Your task to perform on an android device: change notification settings in the gmail app Image 0: 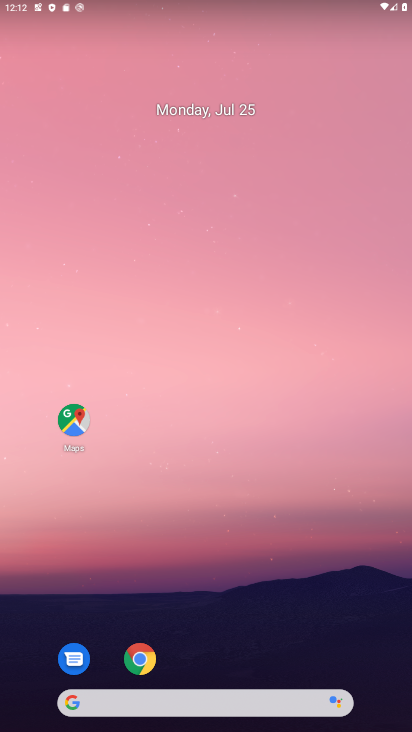
Step 0: click (130, 648)
Your task to perform on an android device: change notification settings in the gmail app Image 1: 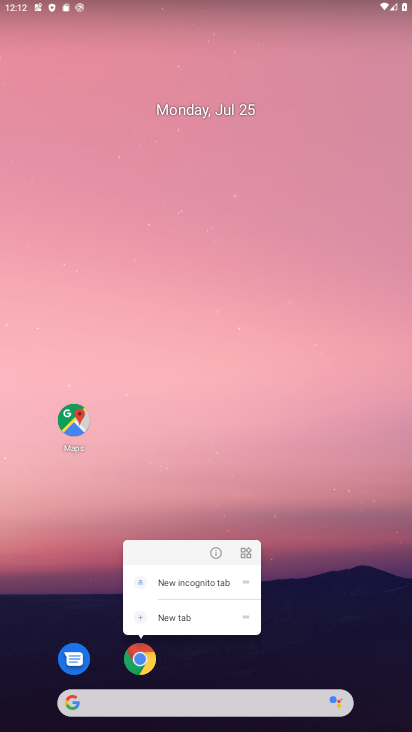
Step 1: click (130, 666)
Your task to perform on an android device: change notification settings in the gmail app Image 2: 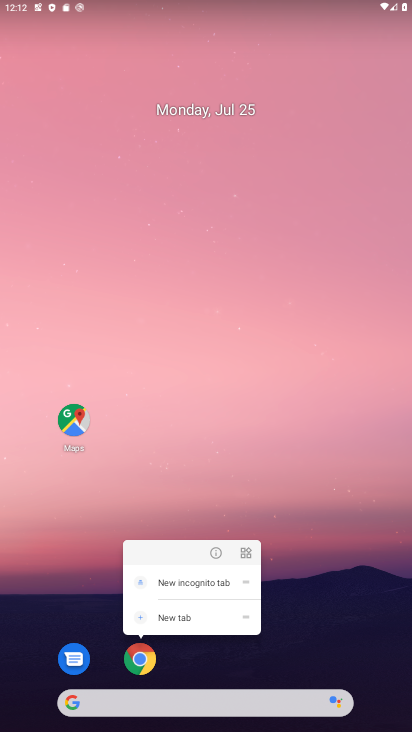
Step 2: click (126, 661)
Your task to perform on an android device: change notification settings in the gmail app Image 3: 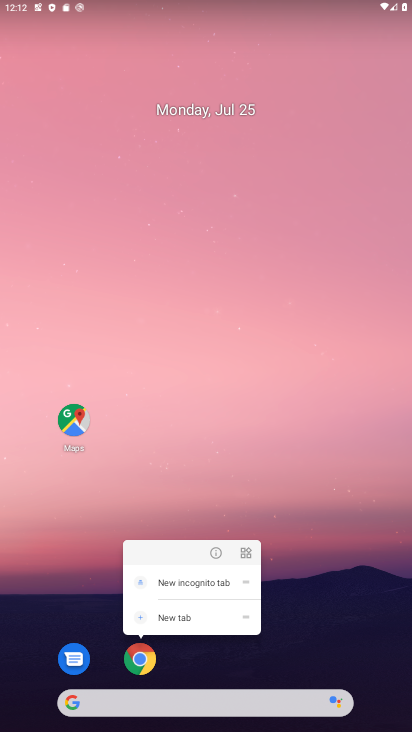
Step 3: click (125, 668)
Your task to perform on an android device: change notification settings in the gmail app Image 4: 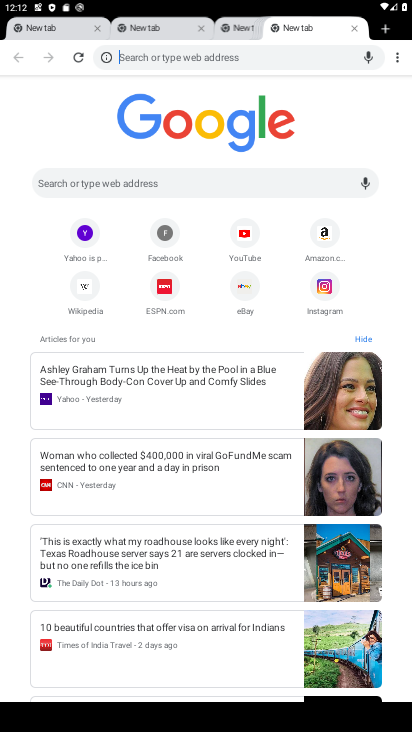
Step 4: click (395, 62)
Your task to perform on an android device: change notification settings in the gmail app Image 5: 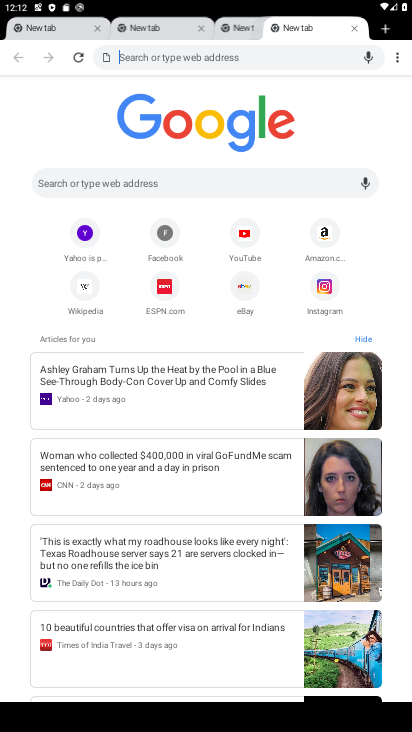
Step 5: click (396, 55)
Your task to perform on an android device: change notification settings in the gmail app Image 6: 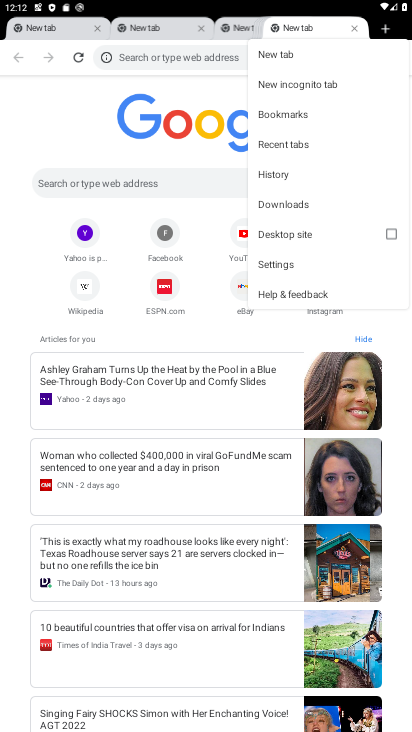
Step 6: click (269, 258)
Your task to perform on an android device: change notification settings in the gmail app Image 7: 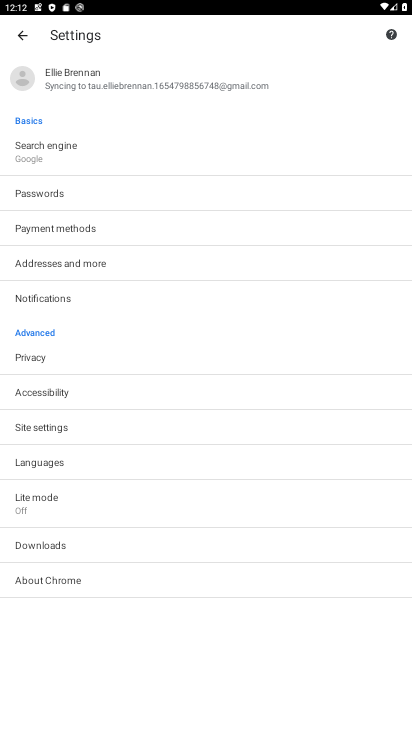
Step 7: task complete